Your task to perform on an android device: Play the last video I watched on Youtube Image 0: 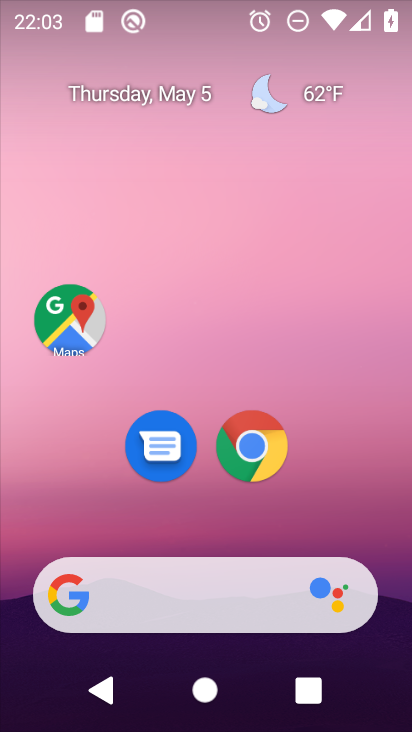
Step 0: drag from (266, 637) to (287, 154)
Your task to perform on an android device: Play the last video I watched on Youtube Image 1: 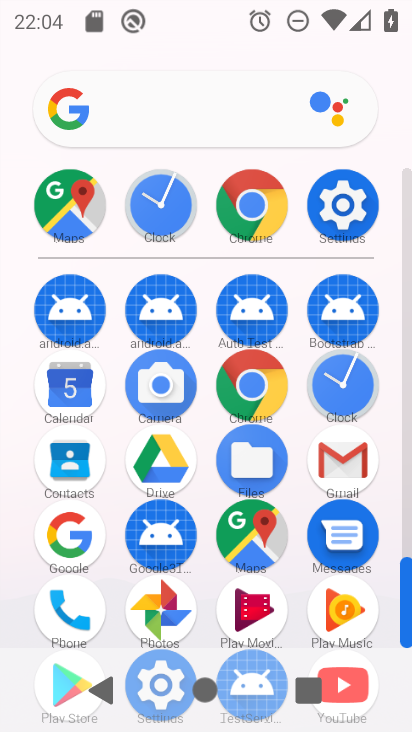
Step 1: drag from (292, 568) to (281, 485)
Your task to perform on an android device: Play the last video I watched on Youtube Image 2: 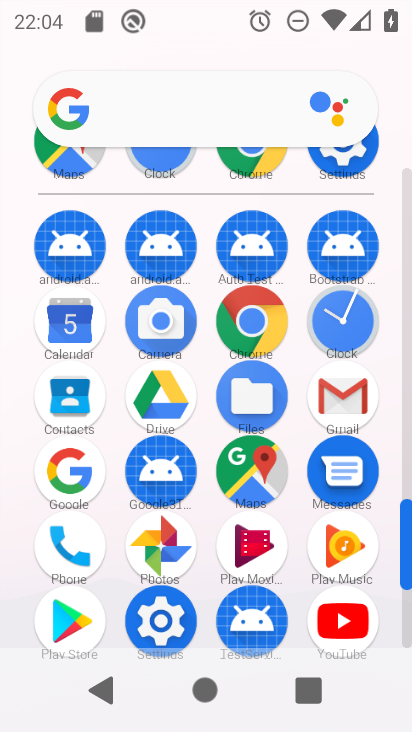
Step 2: click (341, 605)
Your task to perform on an android device: Play the last video I watched on Youtube Image 3: 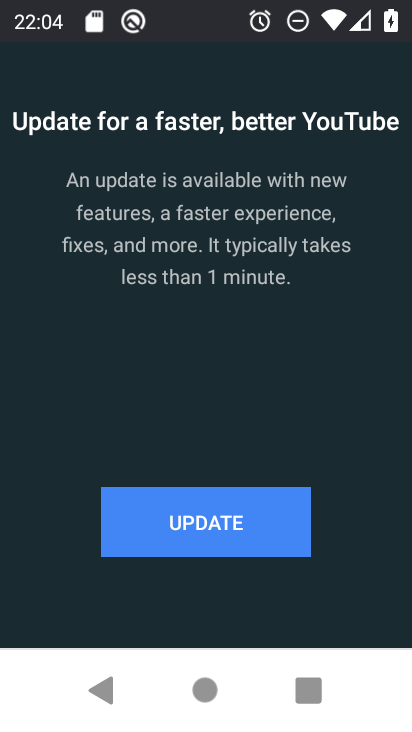
Step 3: click (212, 548)
Your task to perform on an android device: Play the last video I watched on Youtube Image 4: 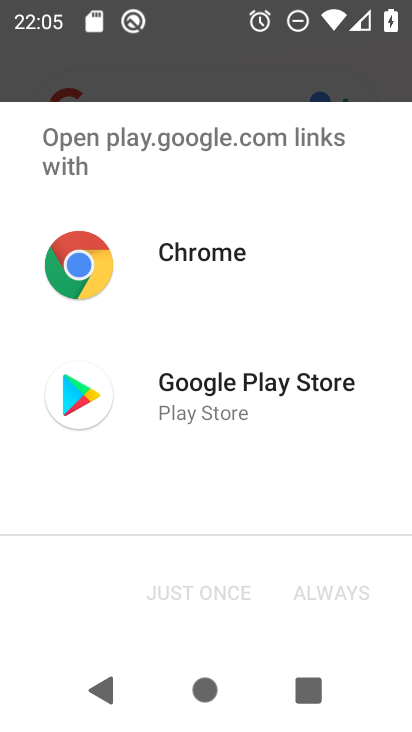
Step 4: click (187, 435)
Your task to perform on an android device: Play the last video I watched on Youtube Image 5: 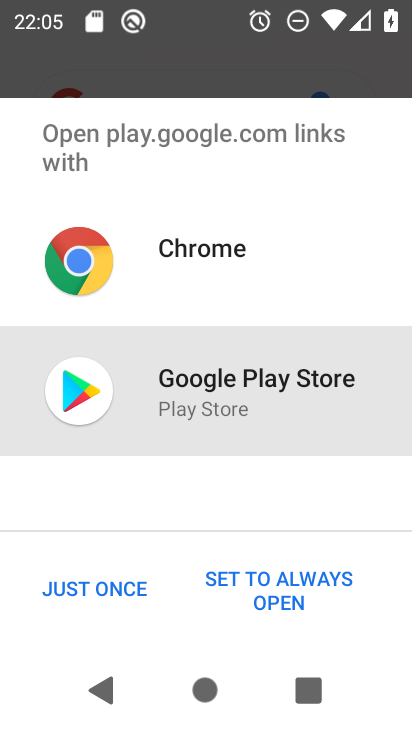
Step 5: click (200, 584)
Your task to perform on an android device: Play the last video I watched on Youtube Image 6: 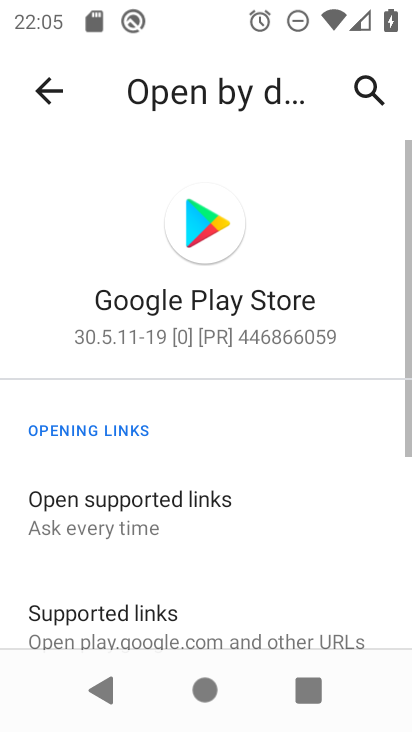
Step 6: click (91, 690)
Your task to perform on an android device: Play the last video I watched on Youtube Image 7: 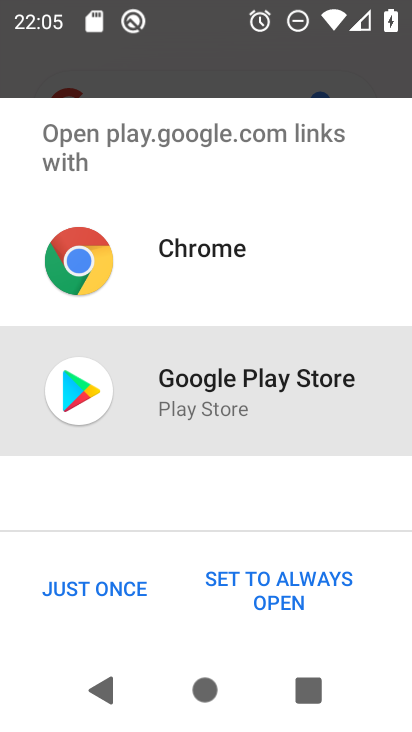
Step 7: click (116, 583)
Your task to perform on an android device: Play the last video I watched on Youtube Image 8: 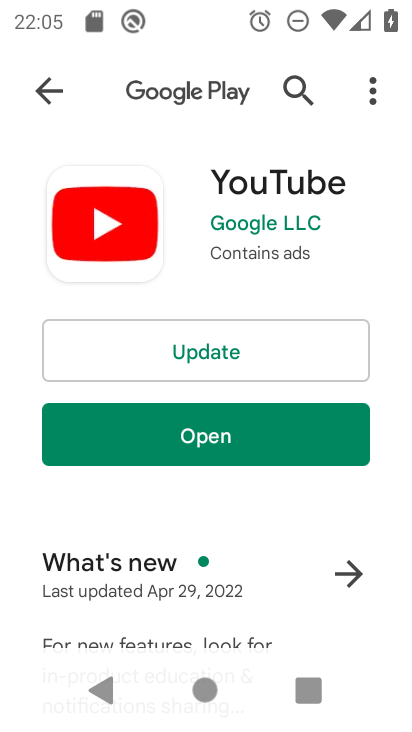
Step 8: click (155, 339)
Your task to perform on an android device: Play the last video I watched on Youtube Image 9: 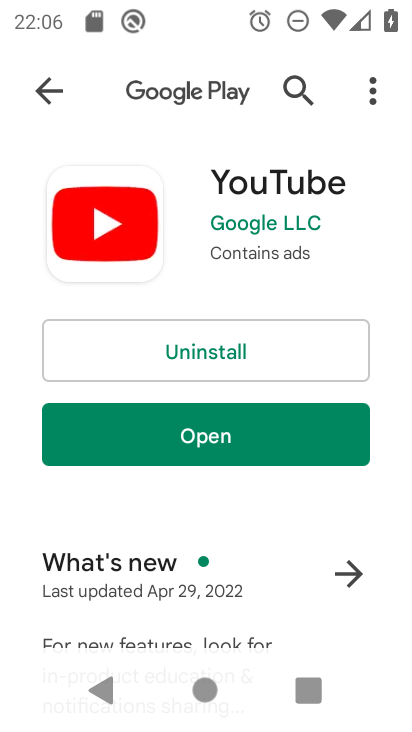
Step 9: click (144, 457)
Your task to perform on an android device: Play the last video I watched on Youtube Image 10: 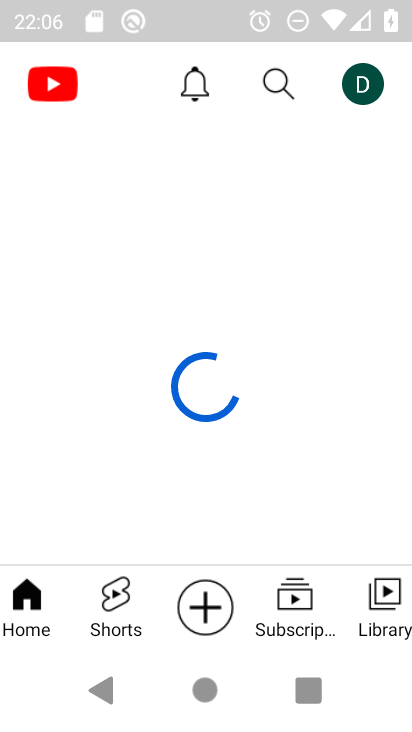
Step 10: click (336, 606)
Your task to perform on an android device: Play the last video I watched on Youtube Image 11: 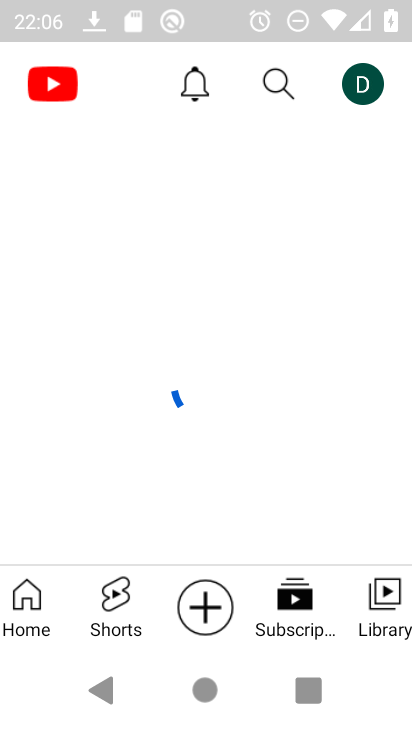
Step 11: click (380, 605)
Your task to perform on an android device: Play the last video I watched on Youtube Image 12: 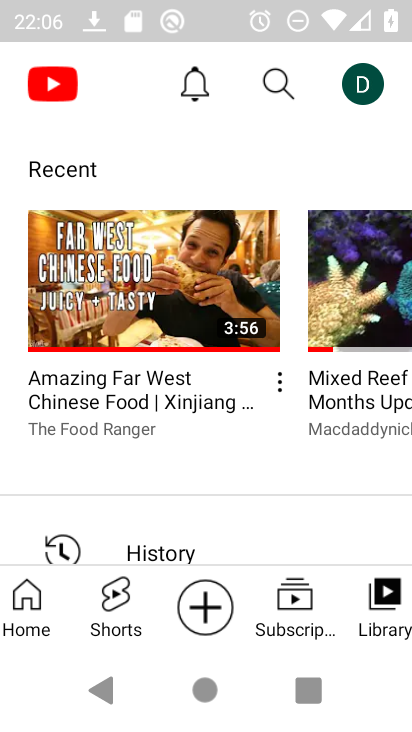
Step 12: click (187, 318)
Your task to perform on an android device: Play the last video I watched on Youtube Image 13: 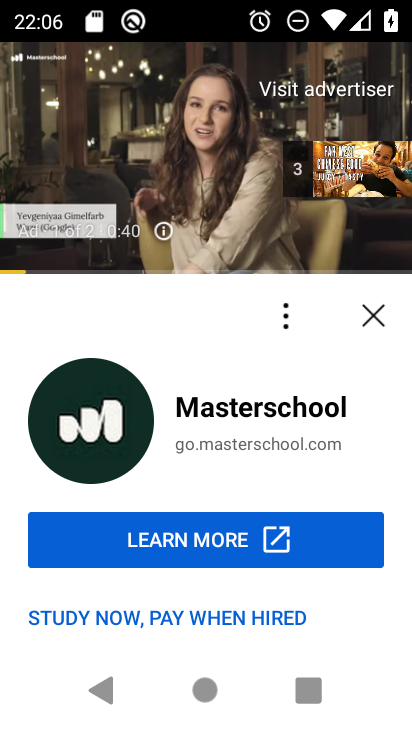
Step 13: task complete